Your task to perform on an android device: refresh tabs in the chrome app Image 0: 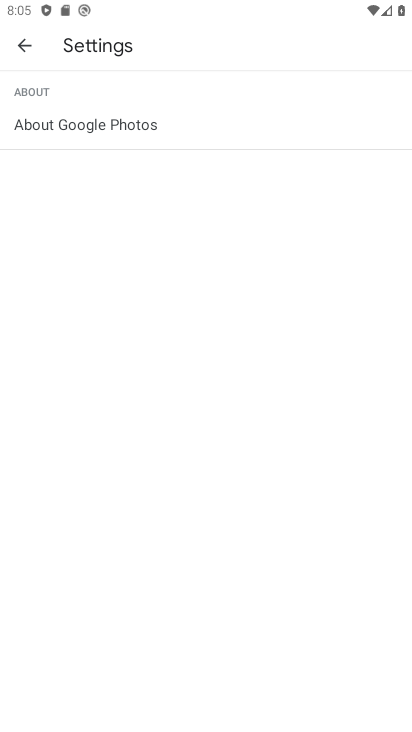
Step 0: press home button
Your task to perform on an android device: refresh tabs in the chrome app Image 1: 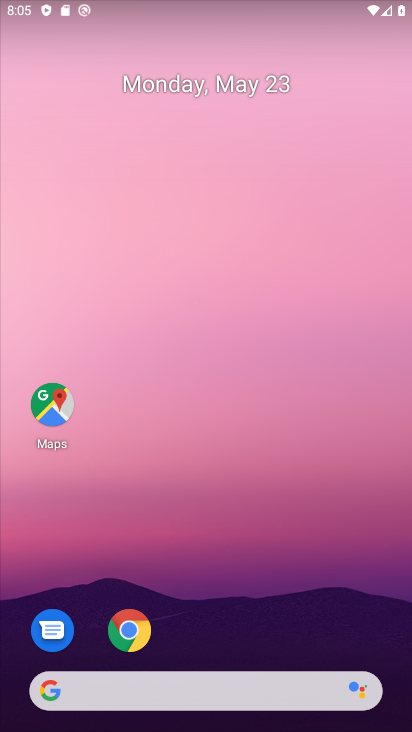
Step 1: drag from (220, 636) to (306, 93)
Your task to perform on an android device: refresh tabs in the chrome app Image 2: 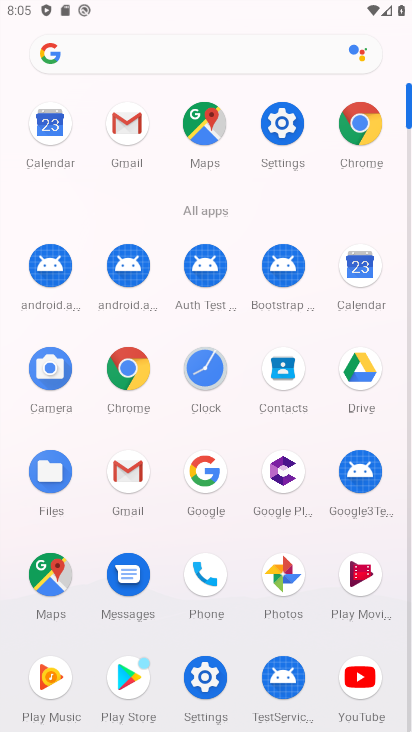
Step 2: click (359, 144)
Your task to perform on an android device: refresh tabs in the chrome app Image 3: 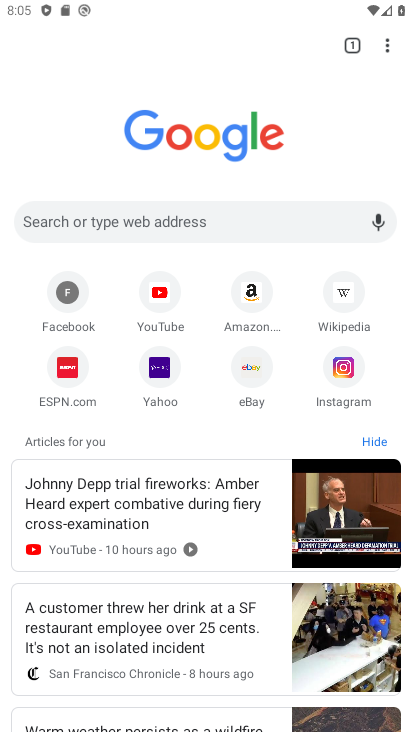
Step 3: click (396, 53)
Your task to perform on an android device: refresh tabs in the chrome app Image 4: 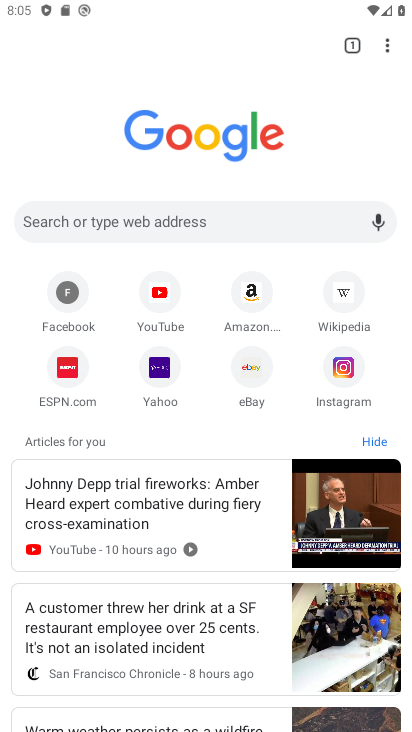
Step 4: click (385, 44)
Your task to perform on an android device: refresh tabs in the chrome app Image 5: 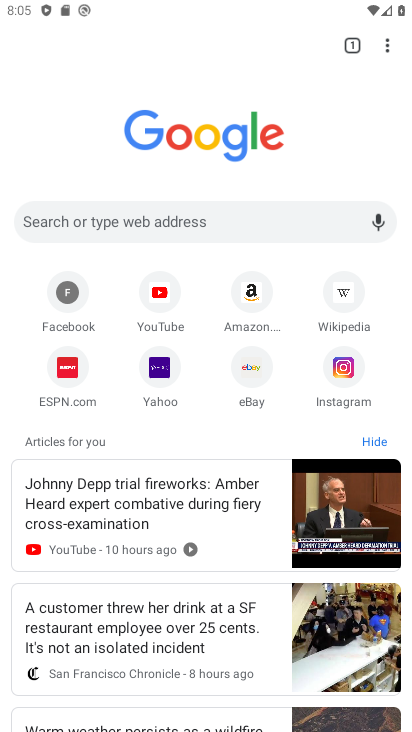
Step 5: click (398, 52)
Your task to perform on an android device: refresh tabs in the chrome app Image 6: 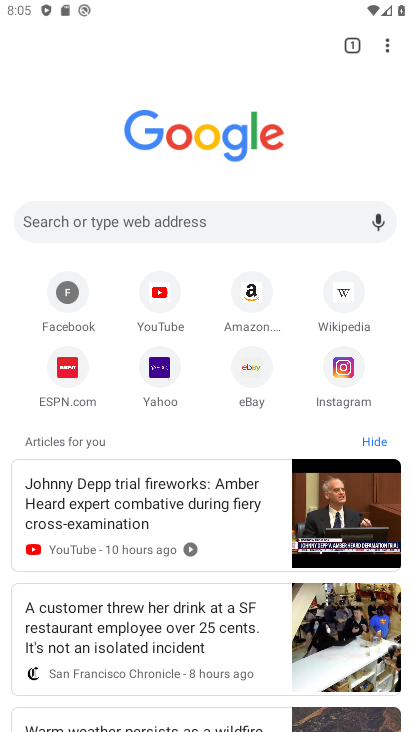
Step 6: click (390, 50)
Your task to perform on an android device: refresh tabs in the chrome app Image 7: 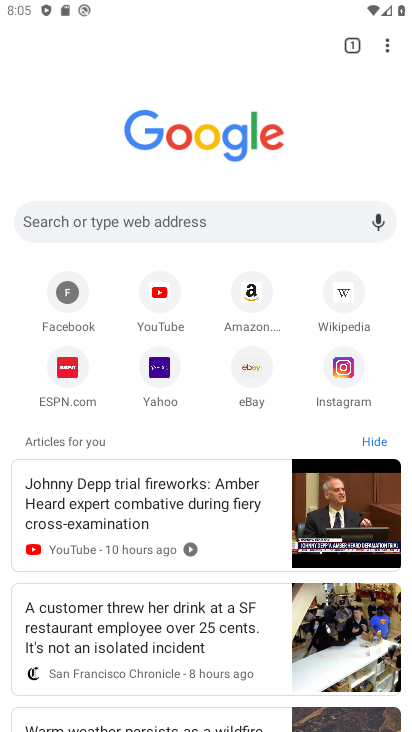
Step 7: click (382, 49)
Your task to perform on an android device: refresh tabs in the chrome app Image 8: 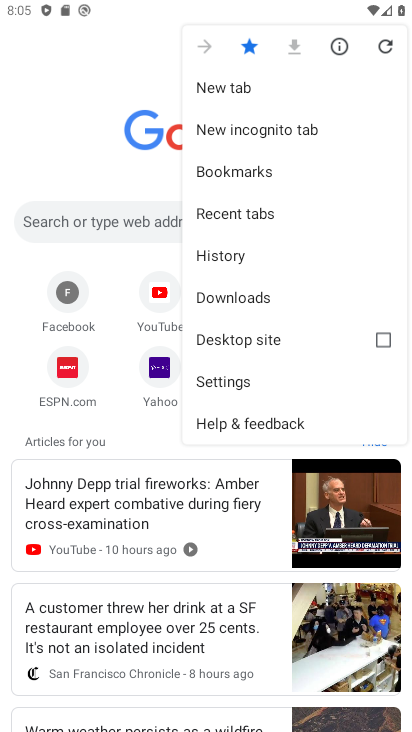
Step 8: click (384, 49)
Your task to perform on an android device: refresh tabs in the chrome app Image 9: 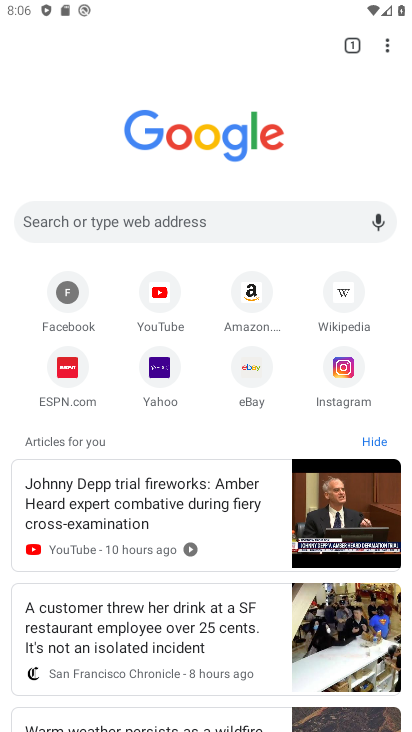
Step 9: task complete